Your task to perform on an android device: Go to Android settings Image 0: 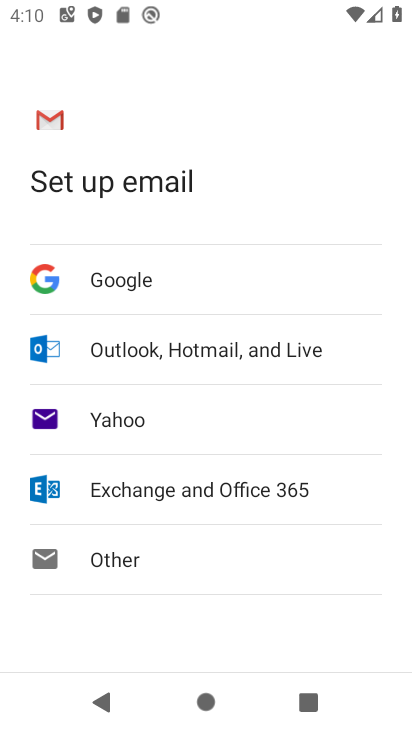
Step 0: press home button
Your task to perform on an android device: Go to Android settings Image 1: 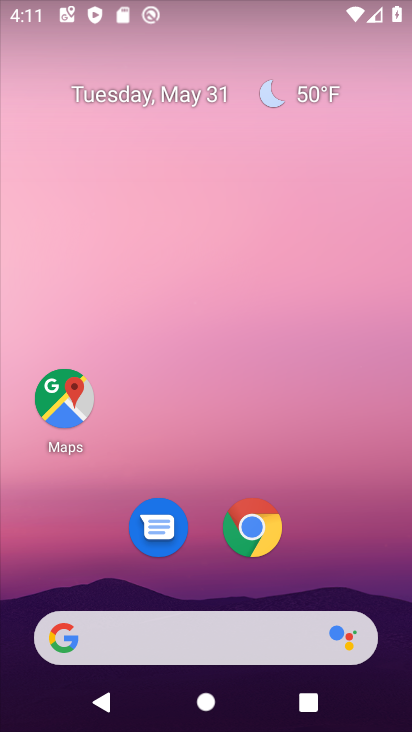
Step 1: drag from (352, 588) to (258, 31)
Your task to perform on an android device: Go to Android settings Image 2: 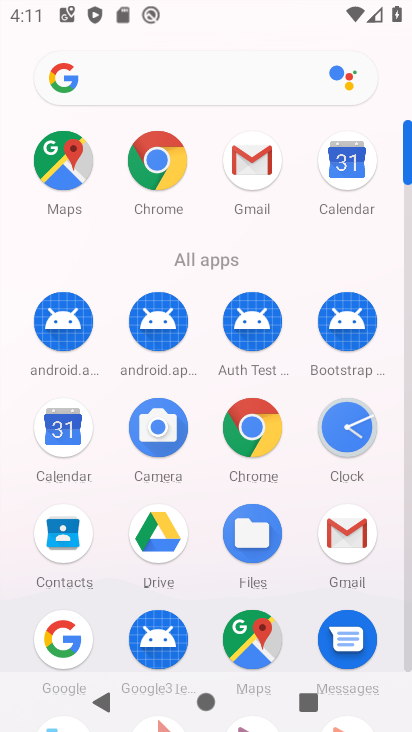
Step 2: click (410, 644)
Your task to perform on an android device: Go to Android settings Image 3: 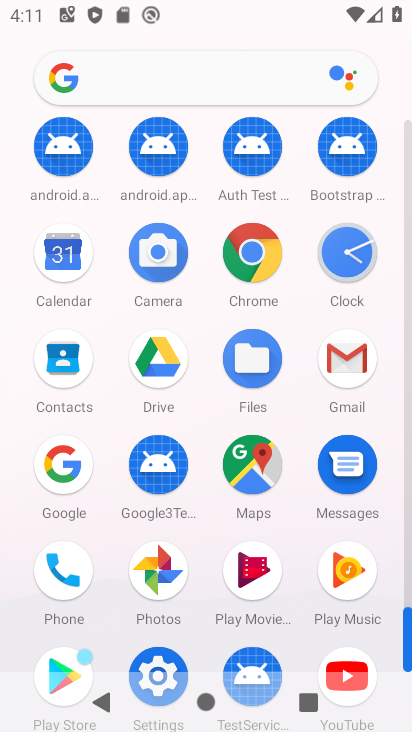
Step 3: click (161, 659)
Your task to perform on an android device: Go to Android settings Image 4: 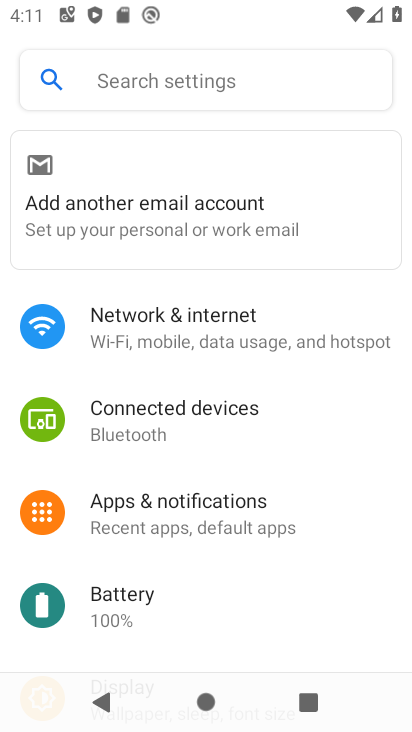
Step 4: task complete